Your task to perform on an android device: toggle show notifications on the lock screen Image 0: 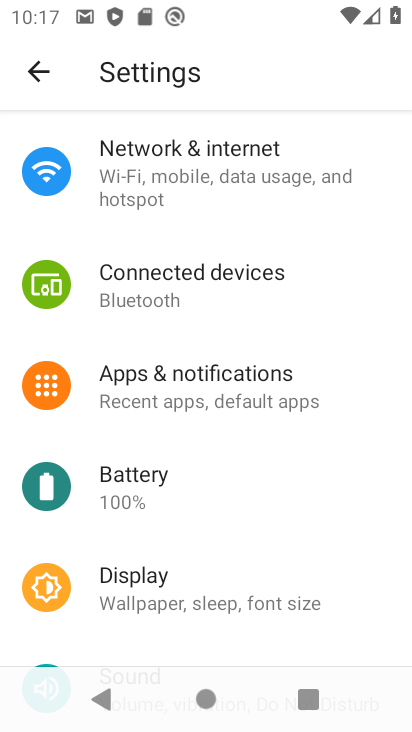
Step 0: drag from (236, 210) to (223, 359)
Your task to perform on an android device: toggle show notifications on the lock screen Image 1: 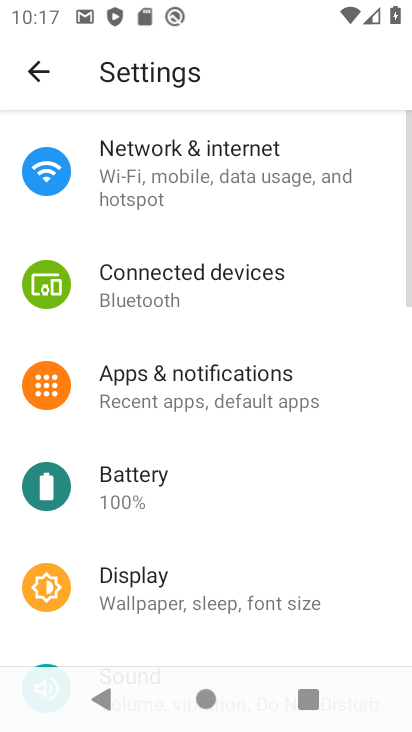
Step 1: click (188, 379)
Your task to perform on an android device: toggle show notifications on the lock screen Image 2: 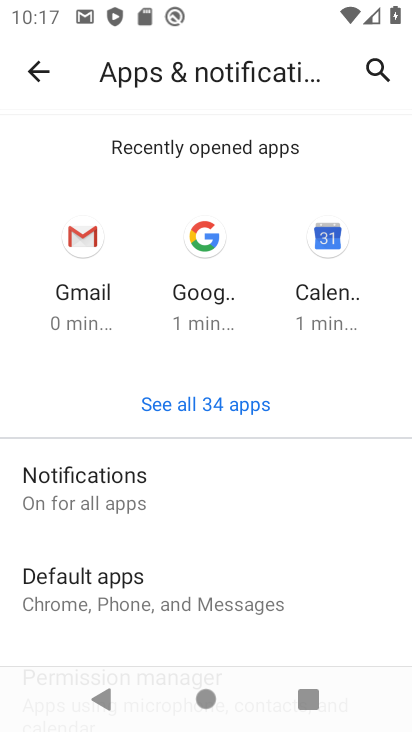
Step 2: click (103, 493)
Your task to perform on an android device: toggle show notifications on the lock screen Image 3: 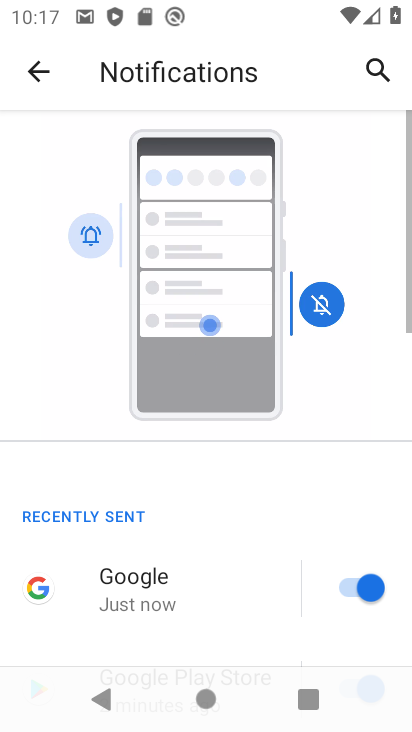
Step 3: task complete